Your task to perform on an android device: Go to eBay Image 0: 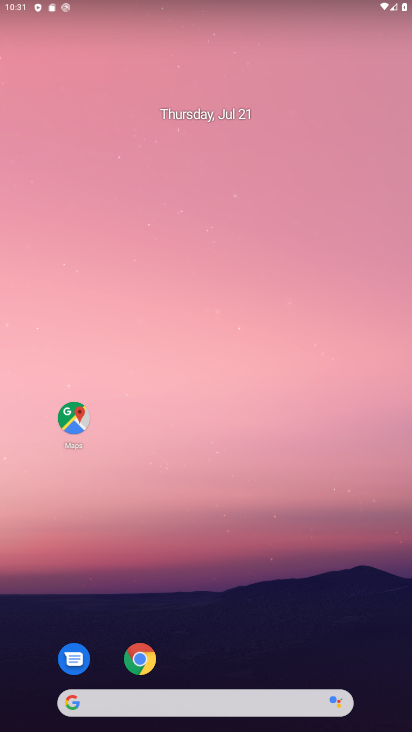
Step 0: click (138, 661)
Your task to perform on an android device: Go to eBay Image 1: 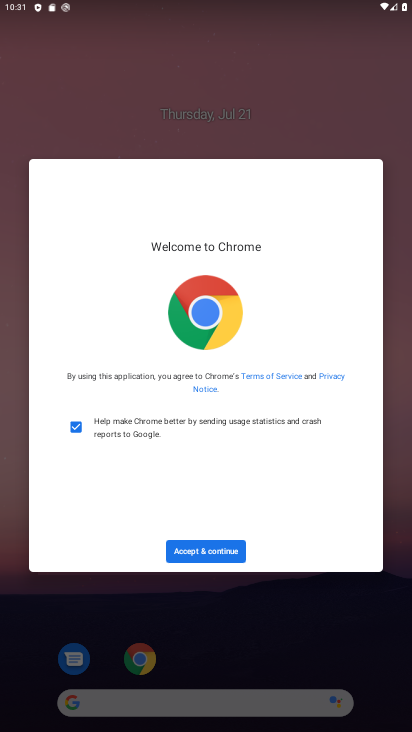
Step 1: click (208, 556)
Your task to perform on an android device: Go to eBay Image 2: 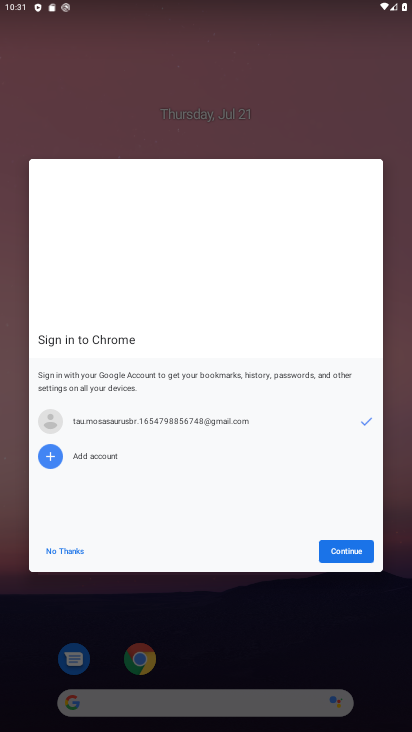
Step 2: click (345, 555)
Your task to perform on an android device: Go to eBay Image 3: 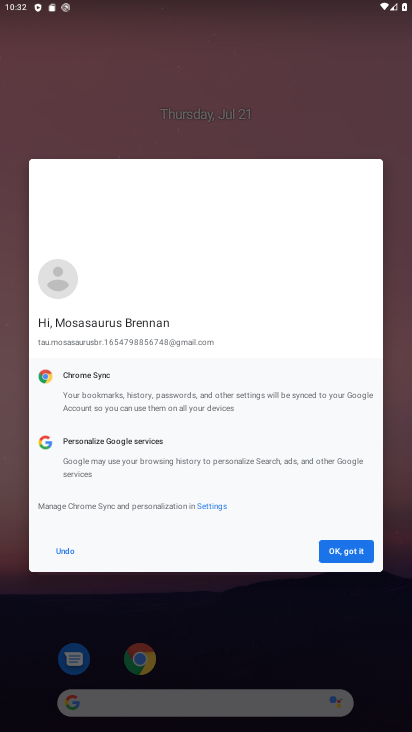
Step 3: click (345, 555)
Your task to perform on an android device: Go to eBay Image 4: 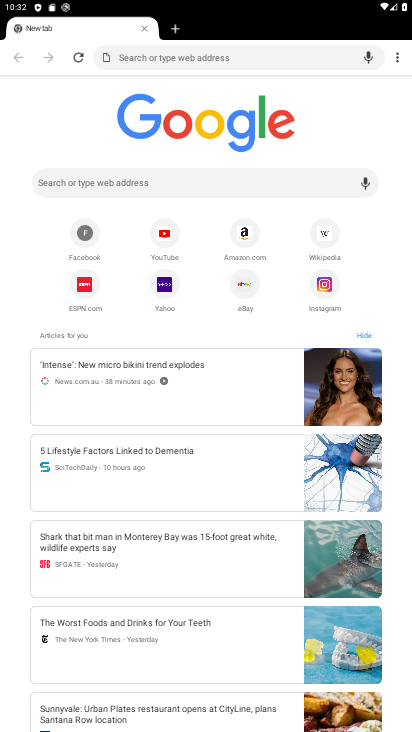
Step 4: click (248, 288)
Your task to perform on an android device: Go to eBay Image 5: 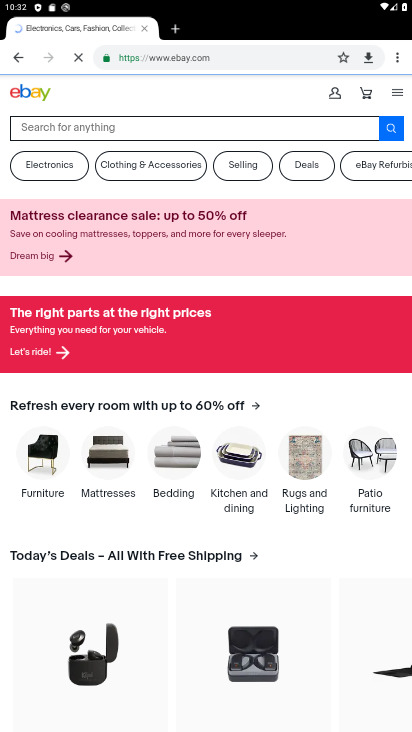
Step 5: task complete